Your task to perform on an android device: check android version Image 0: 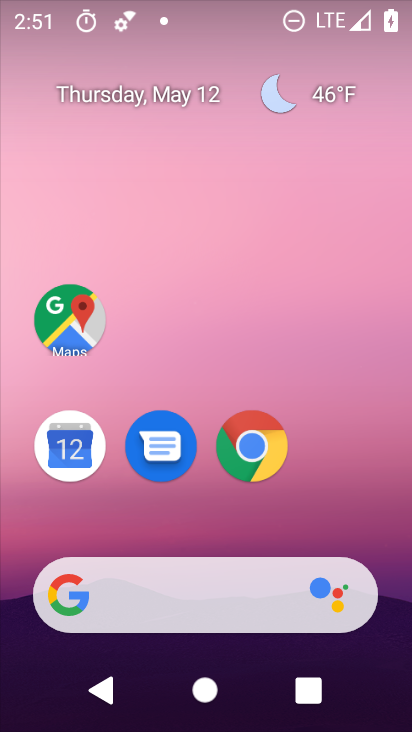
Step 0: drag from (218, 524) to (239, 165)
Your task to perform on an android device: check android version Image 1: 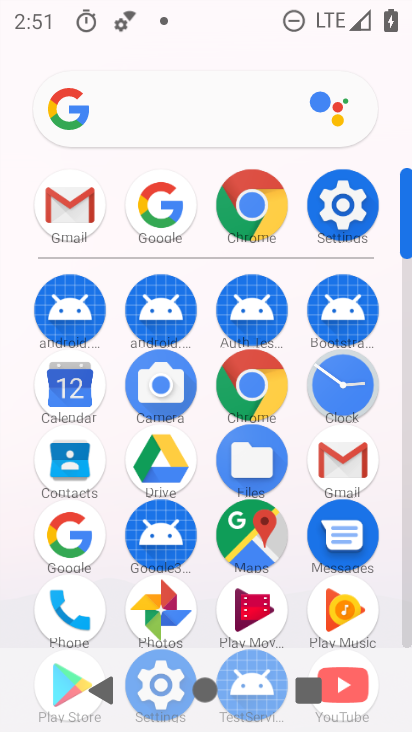
Step 1: click (352, 204)
Your task to perform on an android device: check android version Image 2: 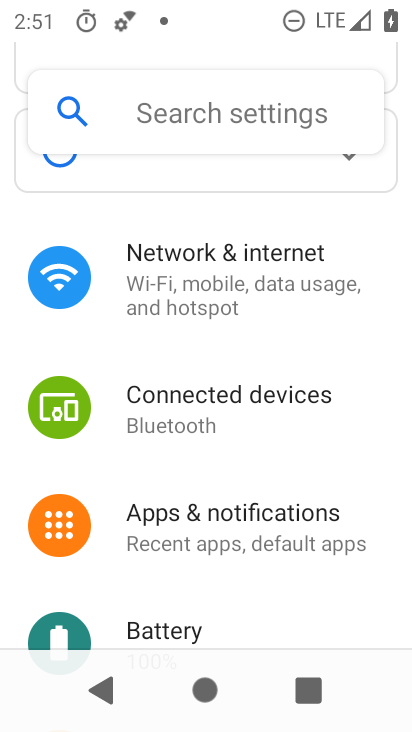
Step 2: drag from (233, 592) to (269, 165)
Your task to perform on an android device: check android version Image 3: 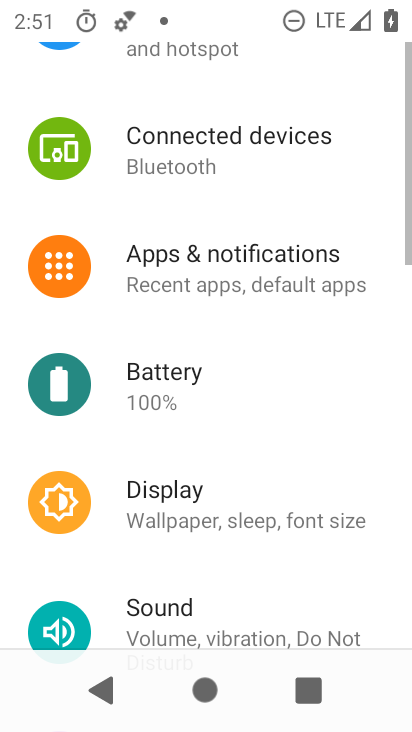
Step 3: drag from (256, 464) to (271, 166)
Your task to perform on an android device: check android version Image 4: 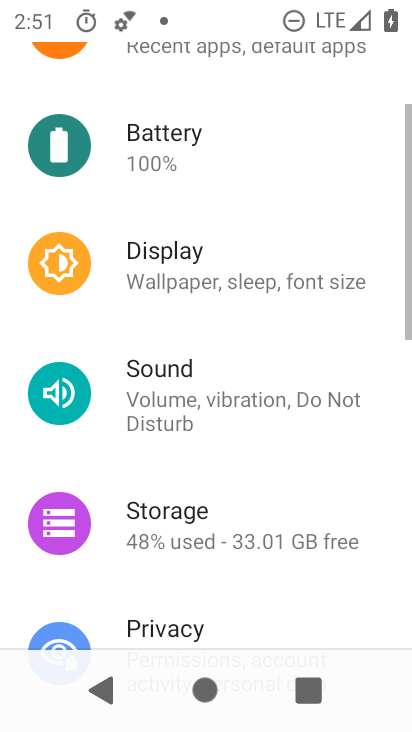
Step 4: drag from (274, 469) to (283, 175)
Your task to perform on an android device: check android version Image 5: 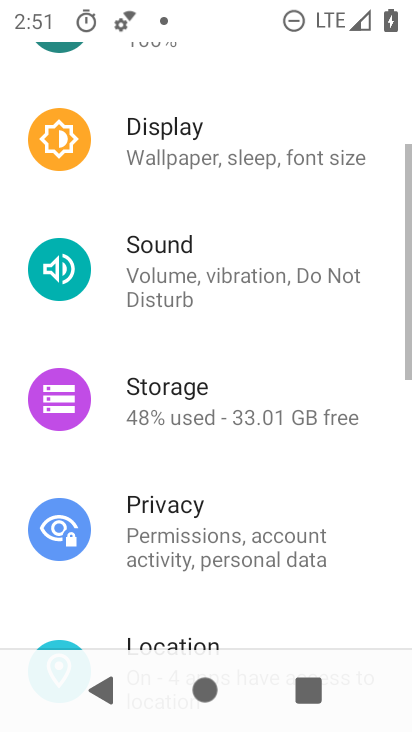
Step 5: drag from (280, 463) to (293, 195)
Your task to perform on an android device: check android version Image 6: 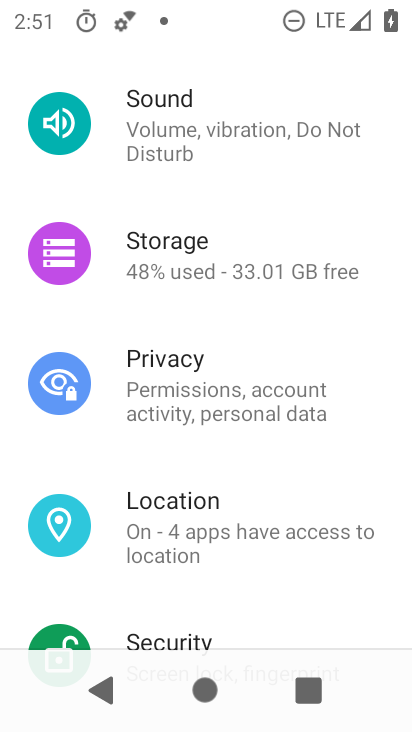
Step 6: drag from (264, 534) to (284, 132)
Your task to perform on an android device: check android version Image 7: 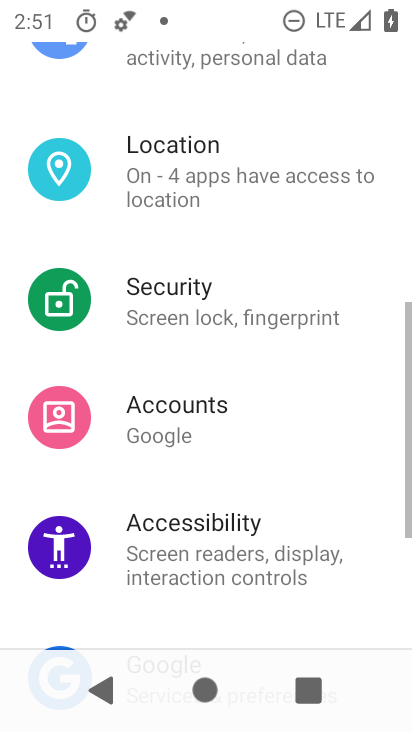
Step 7: drag from (276, 444) to (299, 105)
Your task to perform on an android device: check android version Image 8: 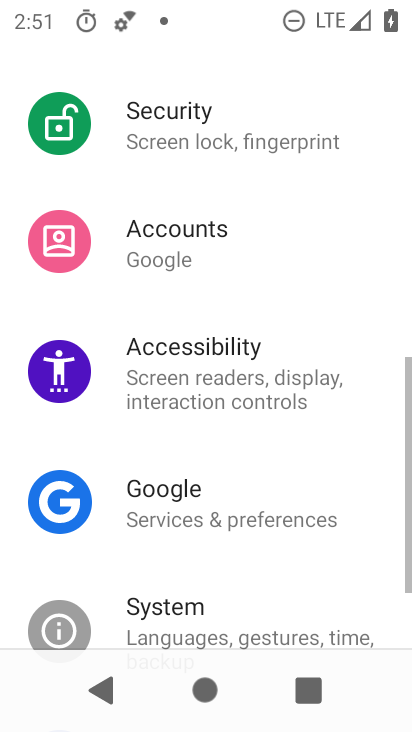
Step 8: drag from (247, 471) to (277, 172)
Your task to perform on an android device: check android version Image 9: 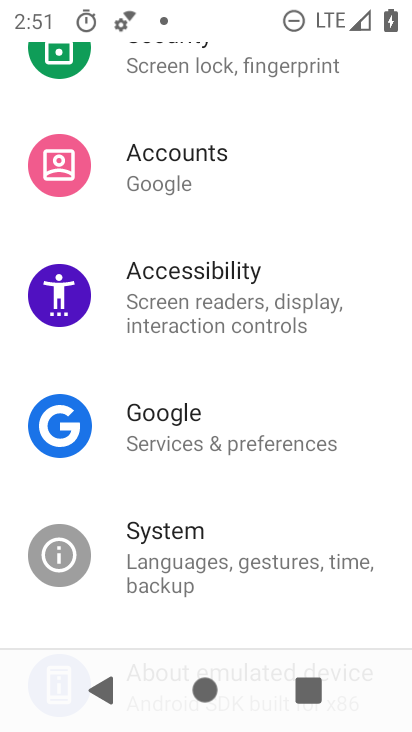
Step 9: drag from (260, 504) to (292, 199)
Your task to perform on an android device: check android version Image 10: 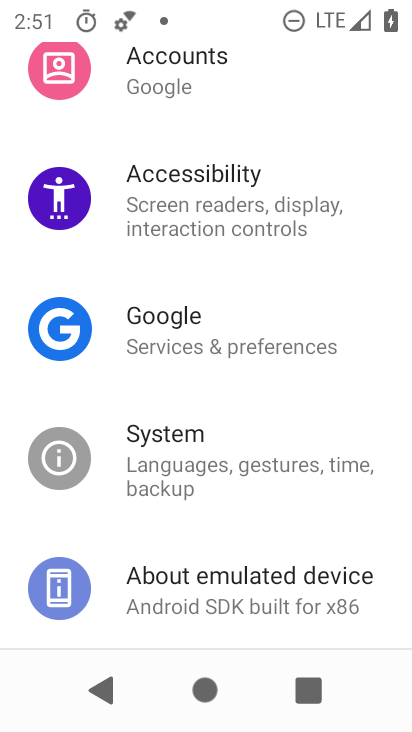
Step 10: drag from (240, 600) to (258, 362)
Your task to perform on an android device: check android version Image 11: 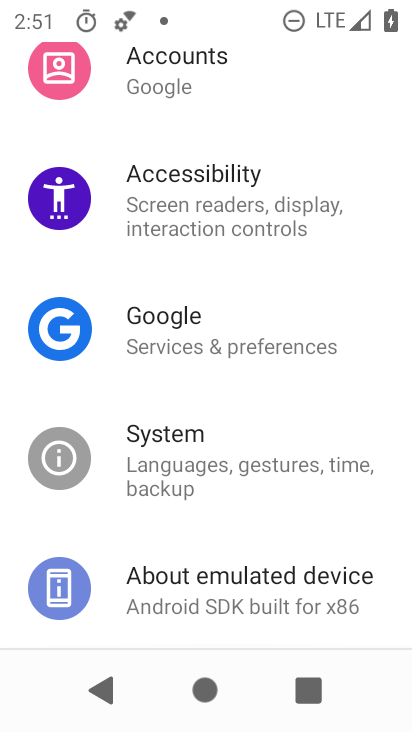
Step 11: click (223, 567)
Your task to perform on an android device: check android version Image 12: 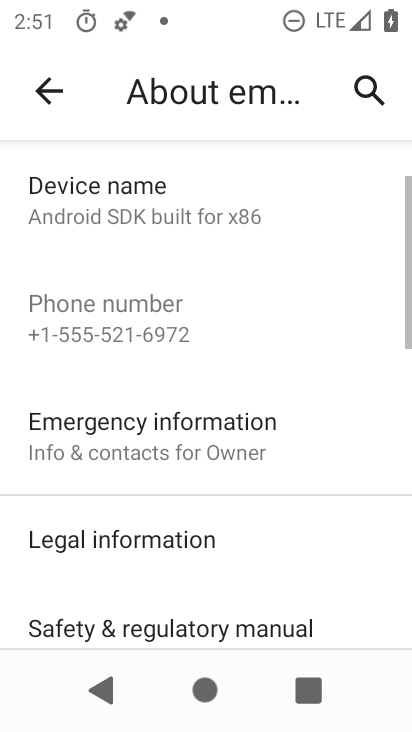
Step 12: drag from (214, 534) to (251, 250)
Your task to perform on an android device: check android version Image 13: 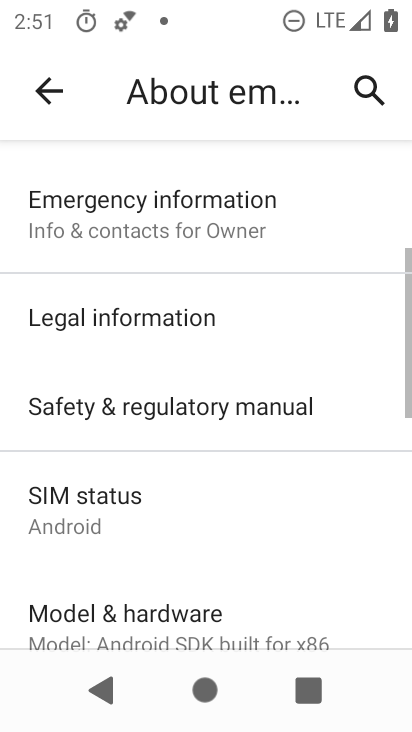
Step 13: drag from (251, 508) to (289, 287)
Your task to perform on an android device: check android version Image 14: 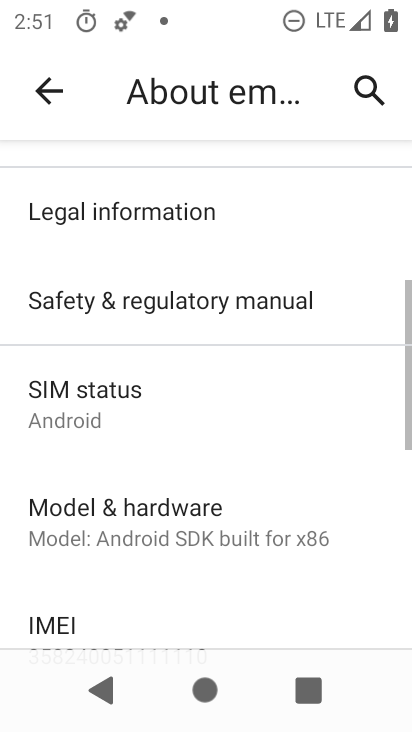
Step 14: drag from (242, 595) to (264, 322)
Your task to perform on an android device: check android version Image 15: 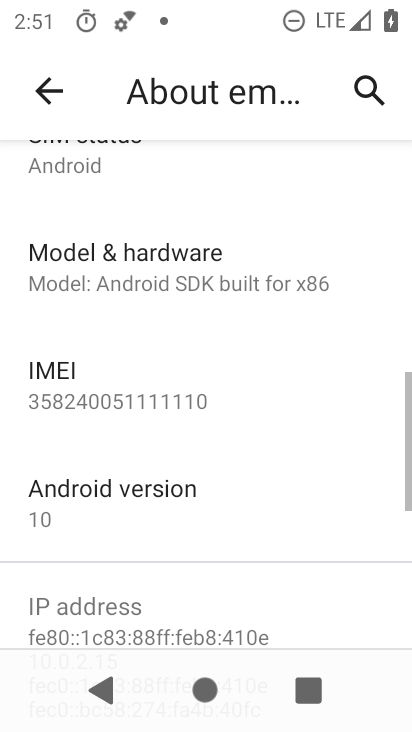
Step 15: click (104, 491)
Your task to perform on an android device: check android version Image 16: 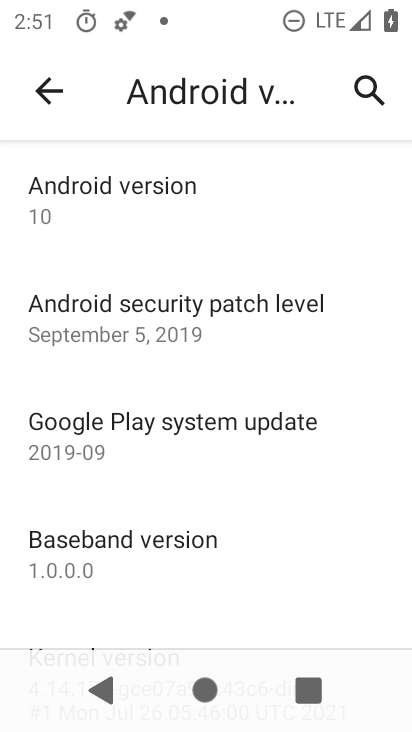
Step 16: click (177, 200)
Your task to perform on an android device: check android version Image 17: 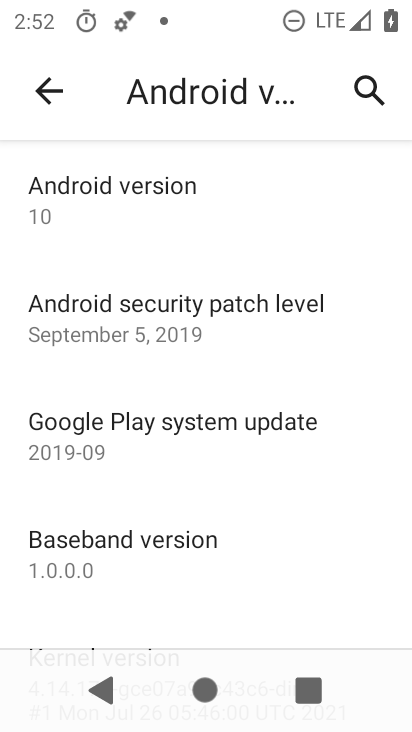
Step 17: click (88, 191)
Your task to perform on an android device: check android version Image 18: 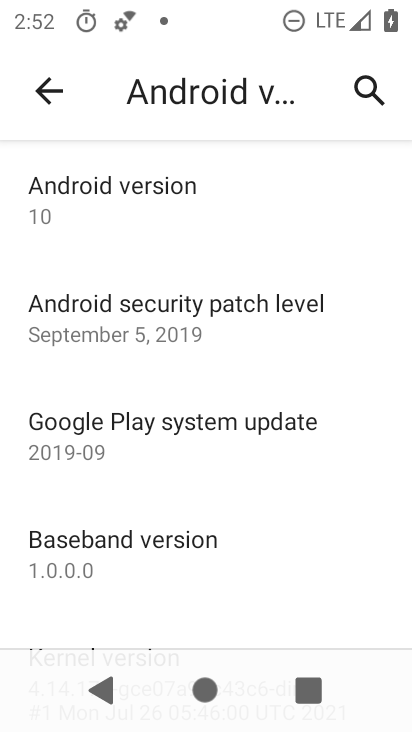
Step 18: task complete